Your task to perform on an android device: turn off data saver in the chrome app Image 0: 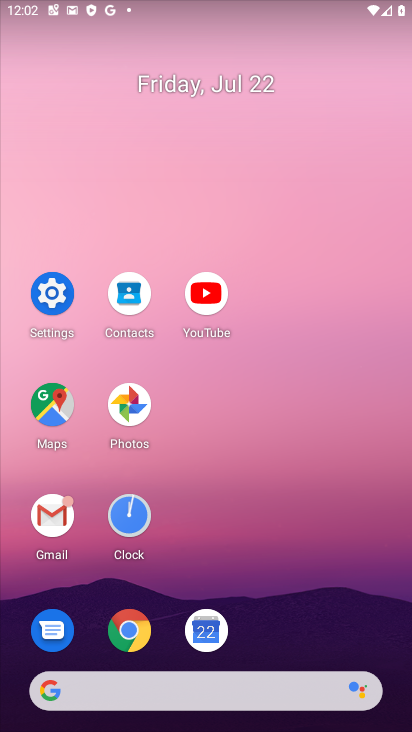
Step 0: click (123, 618)
Your task to perform on an android device: turn off data saver in the chrome app Image 1: 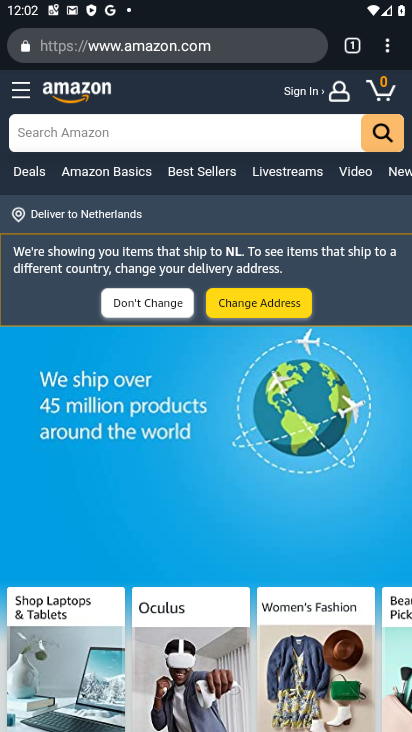
Step 1: click (383, 48)
Your task to perform on an android device: turn off data saver in the chrome app Image 2: 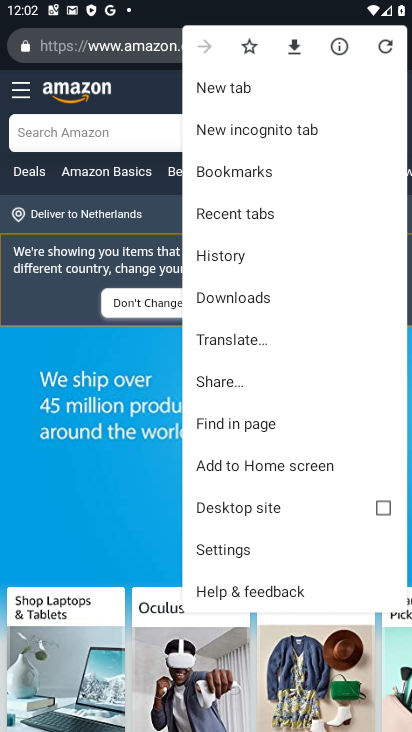
Step 2: click (228, 548)
Your task to perform on an android device: turn off data saver in the chrome app Image 3: 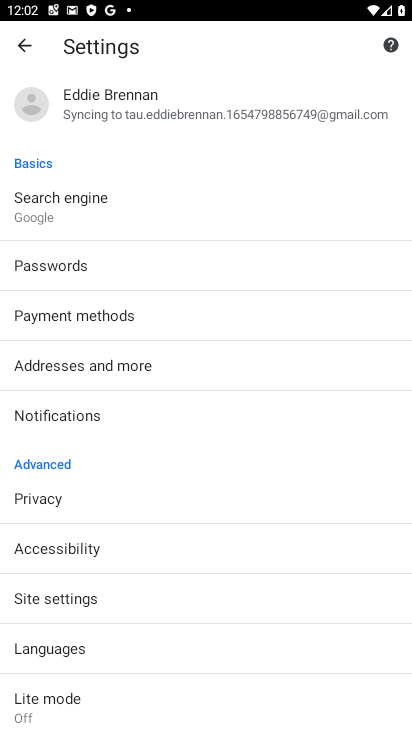
Step 3: click (48, 699)
Your task to perform on an android device: turn off data saver in the chrome app Image 4: 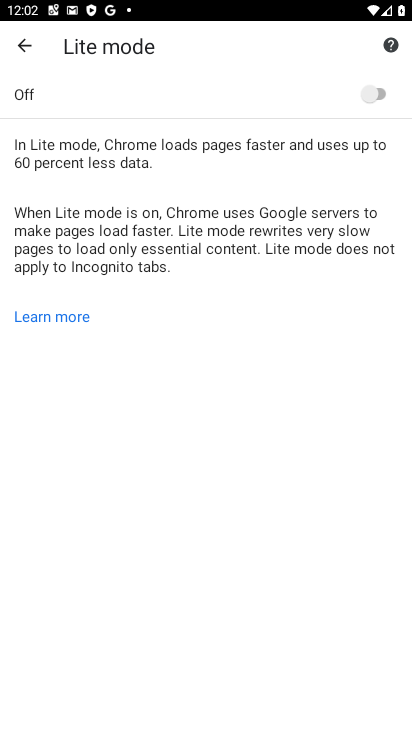
Step 4: task complete